Your task to perform on an android device: Go to Google Image 0: 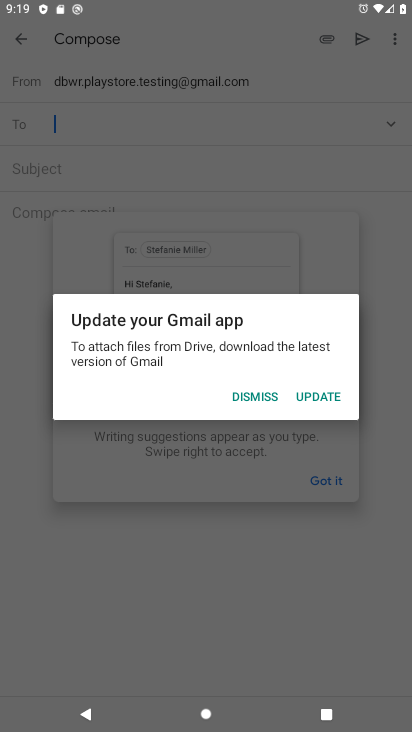
Step 0: press home button
Your task to perform on an android device: Go to Google Image 1: 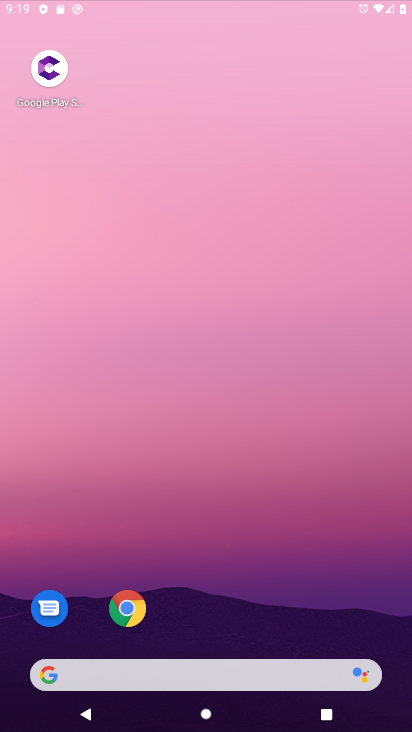
Step 1: drag from (273, 588) to (198, 19)
Your task to perform on an android device: Go to Google Image 2: 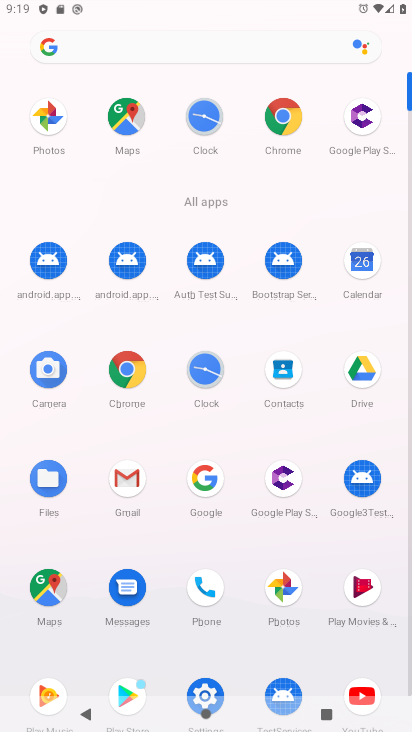
Step 2: click (203, 473)
Your task to perform on an android device: Go to Google Image 3: 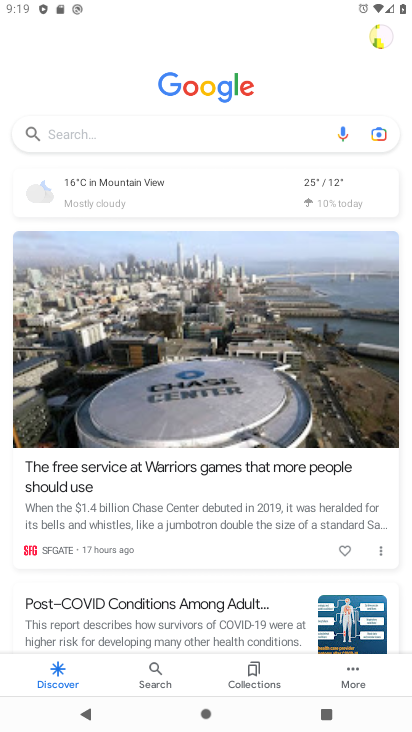
Step 3: task complete